Your task to perform on an android device: find which apps use the phone's location Image 0: 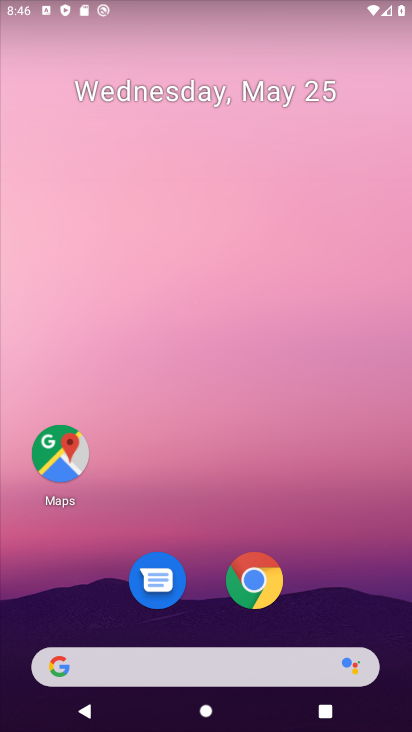
Step 0: drag from (40, 646) to (338, 30)
Your task to perform on an android device: find which apps use the phone's location Image 1: 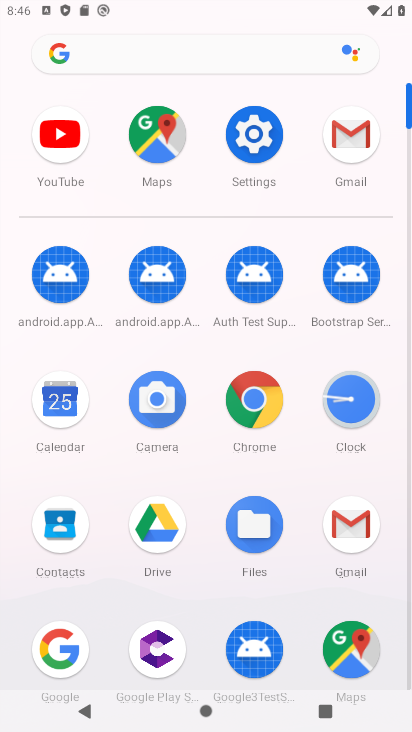
Step 1: click (249, 139)
Your task to perform on an android device: find which apps use the phone's location Image 2: 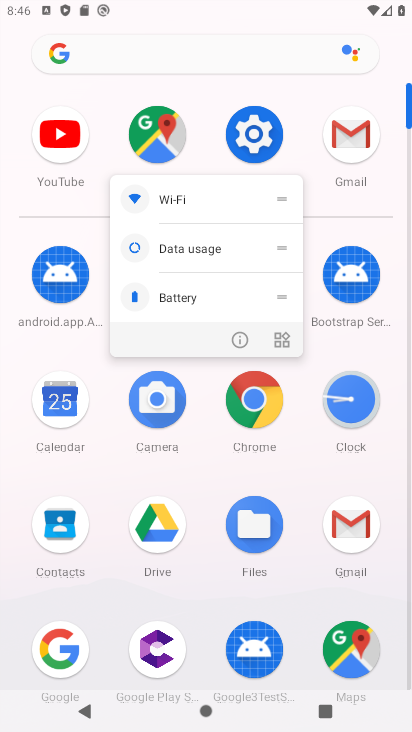
Step 2: click (263, 119)
Your task to perform on an android device: find which apps use the phone's location Image 3: 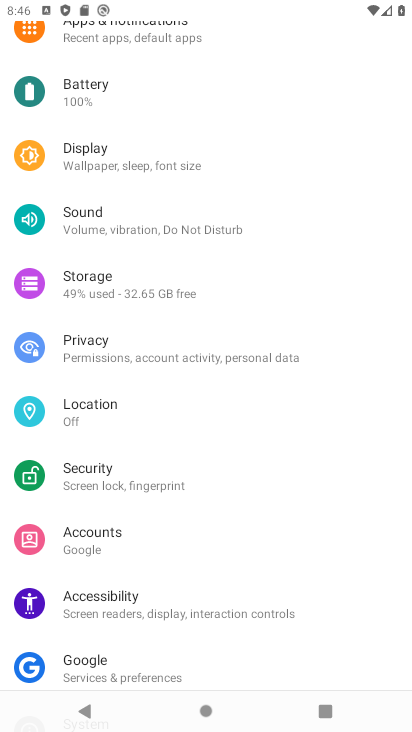
Step 3: click (95, 407)
Your task to perform on an android device: find which apps use the phone's location Image 4: 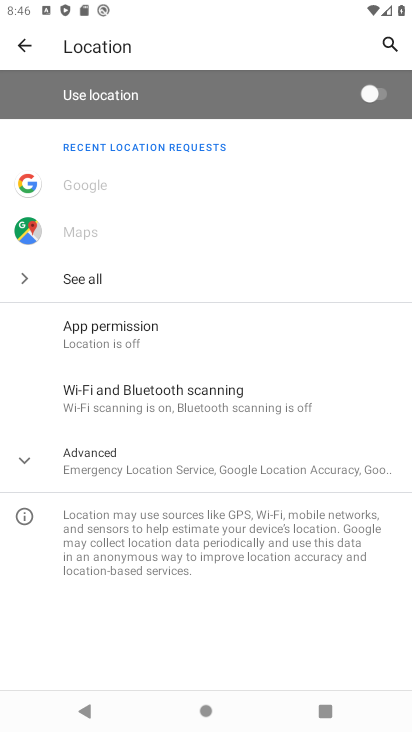
Step 4: click (177, 325)
Your task to perform on an android device: find which apps use the phone's location Image 5: 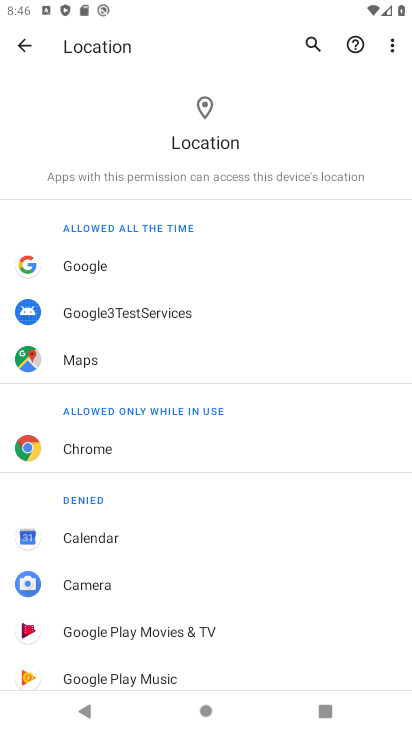
Step 5: task complete